Your task to perform on an android device: Open internet settings Image 0: 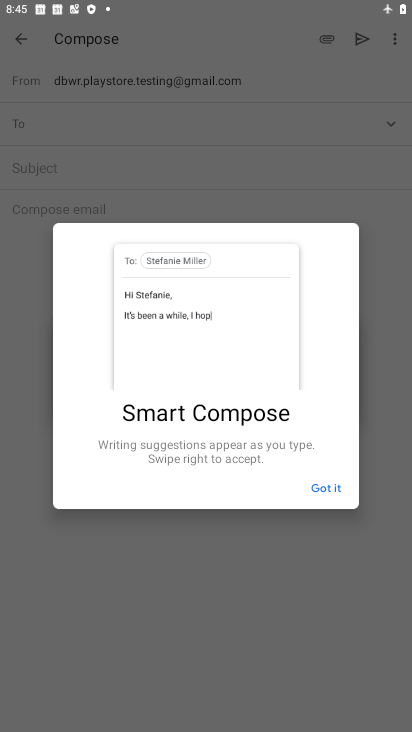
Step 0: click (327, 491)
Your task to perform on an android device: Open internet settings Image 1: 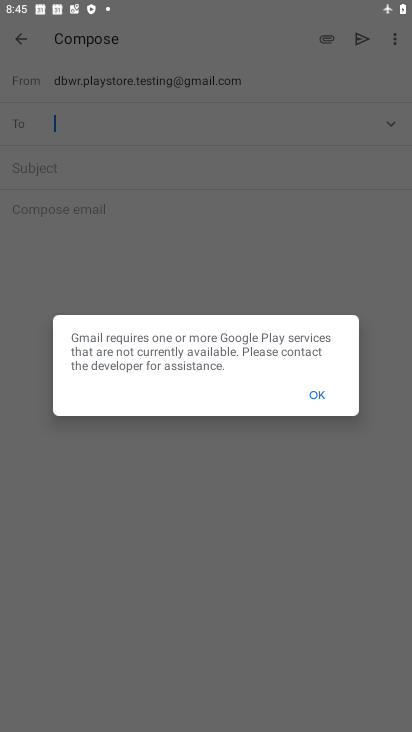
Step 1: press home button
Your task to perform on an android device: Open internet settings Image 2: 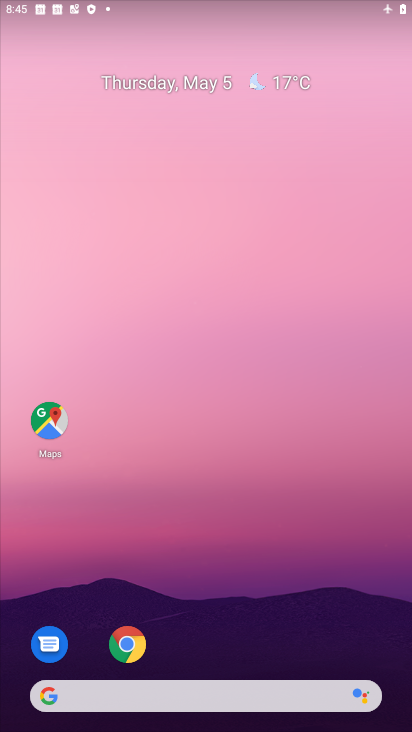
Step 2: drag from (226, 575) to (298, 15)
Your task to perform on an android device: Open internet settings Image 3: 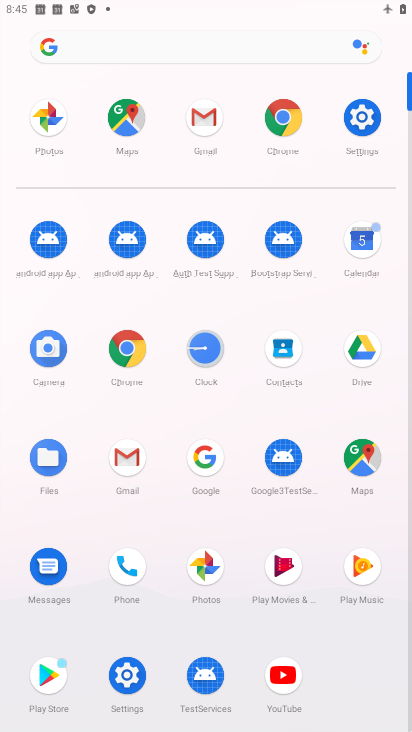
Step 3: click (358, 109)
Your task to perform on an android device: Open internet settings Image 4: 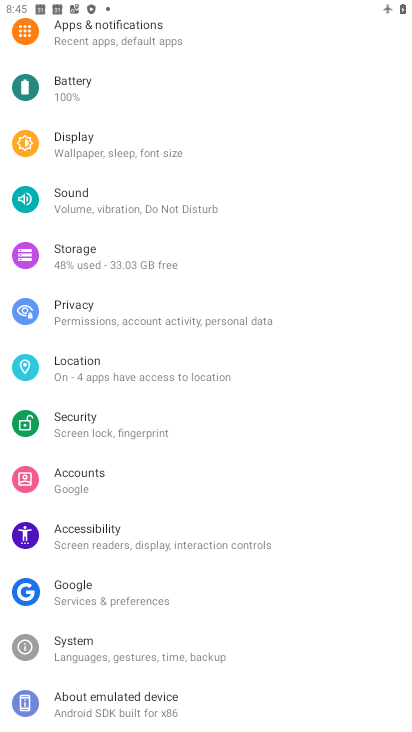
Step 4: drag from (185, 144) to (246, 656)
Your task to perform on an android device: Open internet settings Image 5: 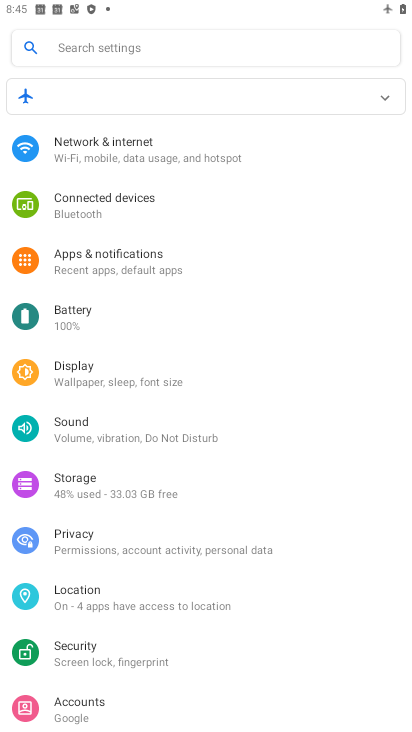
Step 5: click (136, 145)
Your task to perform on an android device: Open internet settings Image 6: 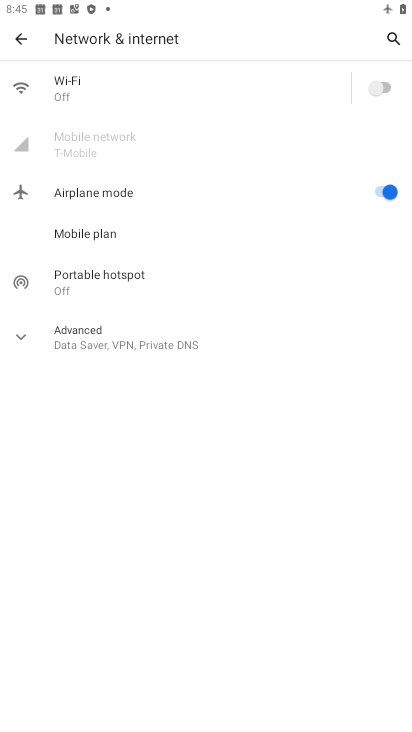
Step 6: task complete